Your task to perform on an android device: What is the news today? Image 0: 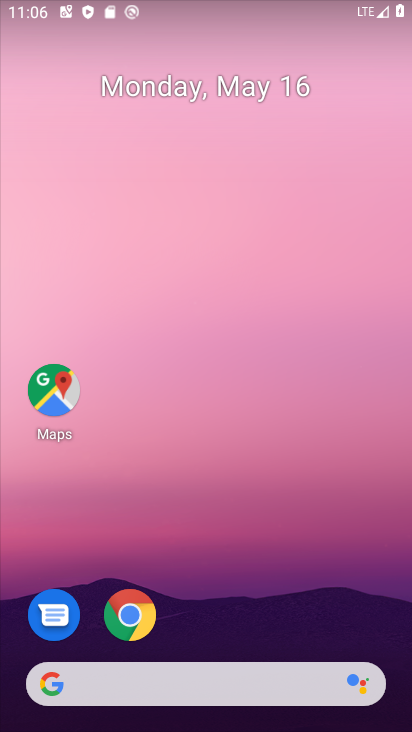
Step 0: drag from (274, 669) to (316, 205)
Your task to perform on an android device: What is the news today? Image 1: 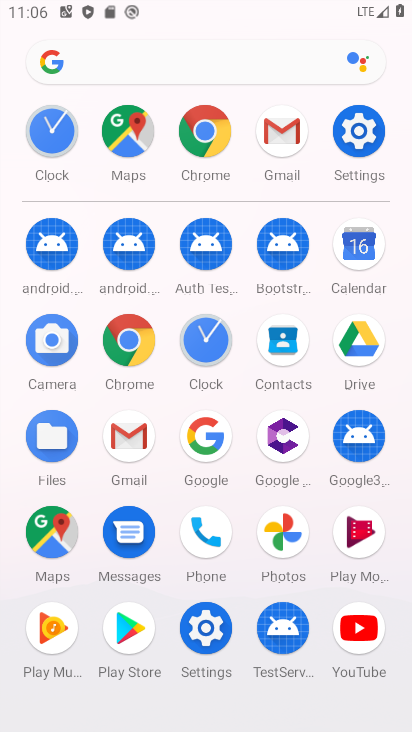
Step 1: click (196, 442)
Your task to perform on an android device: What is the news today? Image 2: 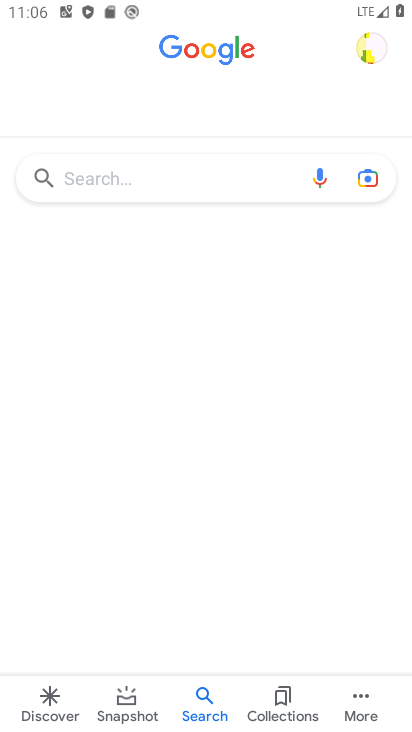
Step 2: click (211, 185)
Your task to perform on an android device: What is the news today? Image 3: 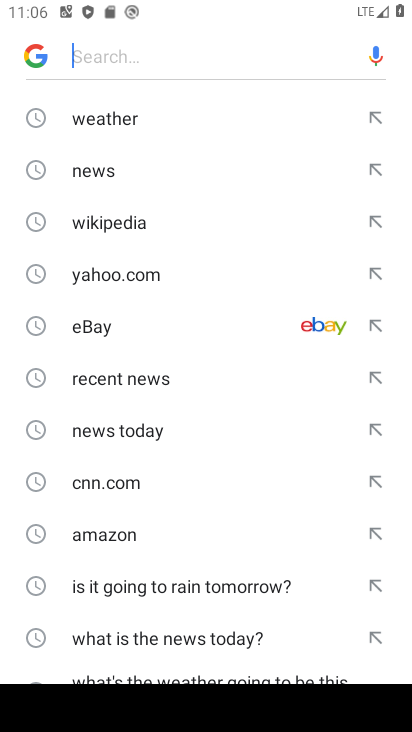
Step 3: click (228, 175)
Your task to perform on an android device: What is the news today? Image 4: 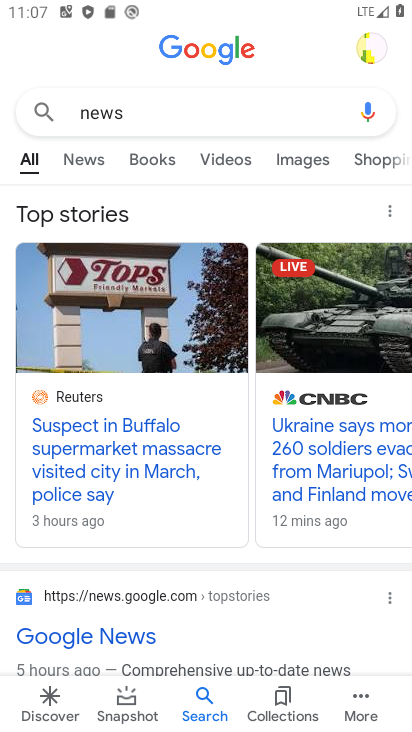
Step 4: click (91, 159)
Your task to perform on an android device: What is the news today? Image 5: 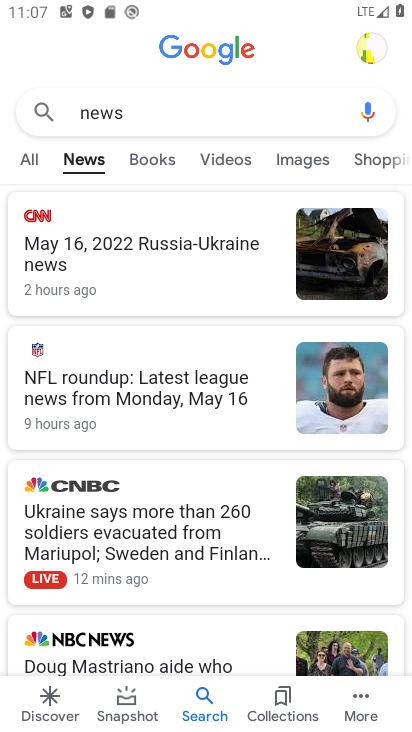
Step 5: task complete